Your task to perform on an android device: clear all cookies in the chrome app Image 0: 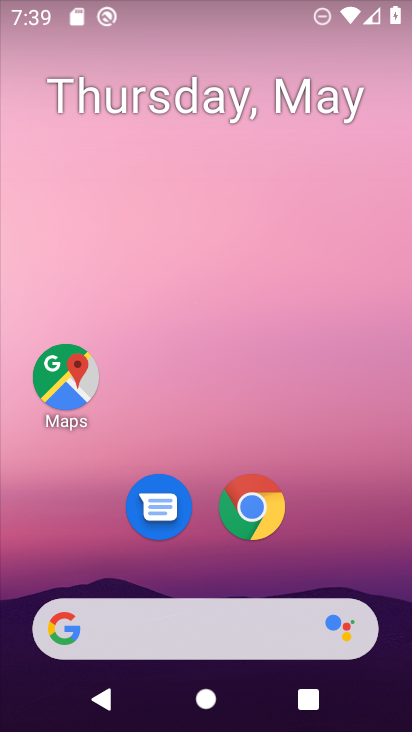
Step 0: drag from (331, 506) to (289, 99)
Your task to perform on an android device: clear all cookies in the chrome app Image 1: 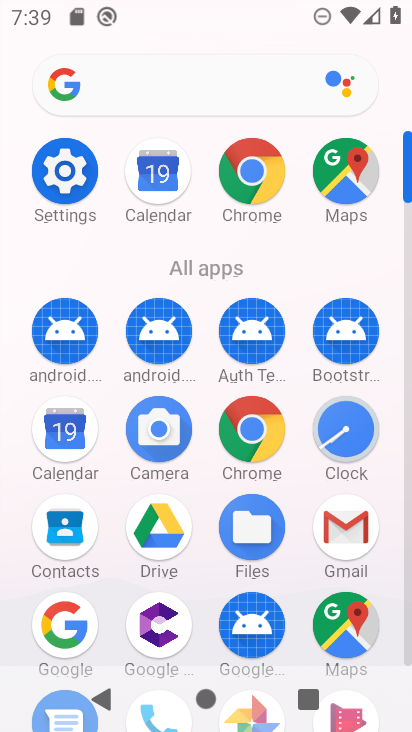
Step 1: click (257, 186)
Your task to perform on an android device: clear all cookies in the chrome app Image 2: 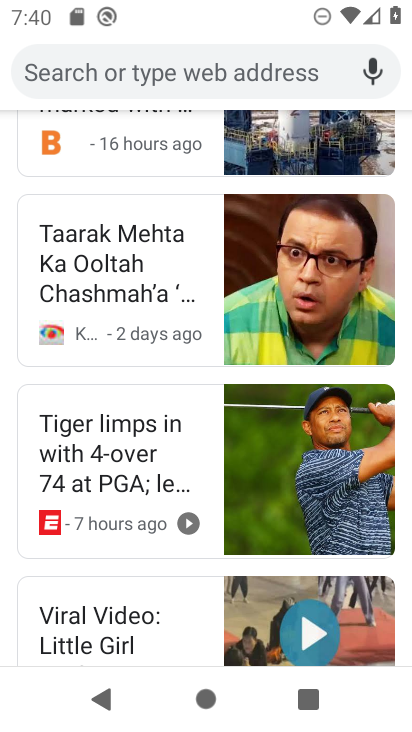
Step 2: task complete